Your task to perform on an android device: Go to privacy settings Image 0: 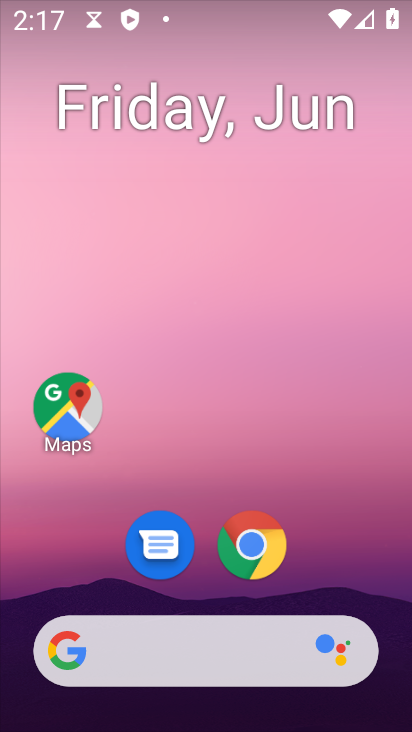
Step 0: drag from (312, 579) to (332, 175)
Your task to perform on an android device: Go to privacy settings Image 1: 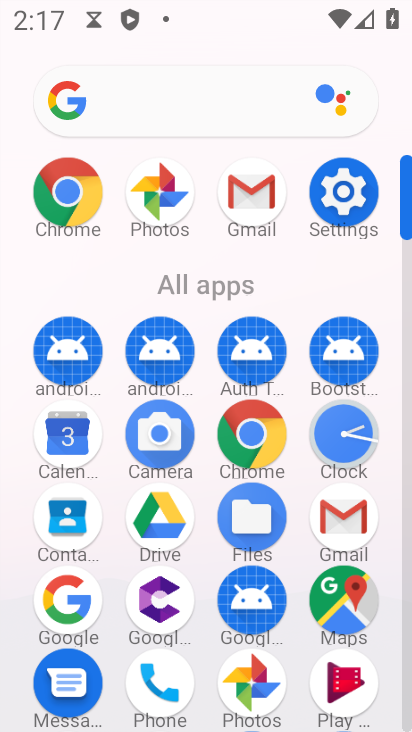
Step 1: click (362, 214)
Your task to perform on an android device: Go to privacy settings Image 2: 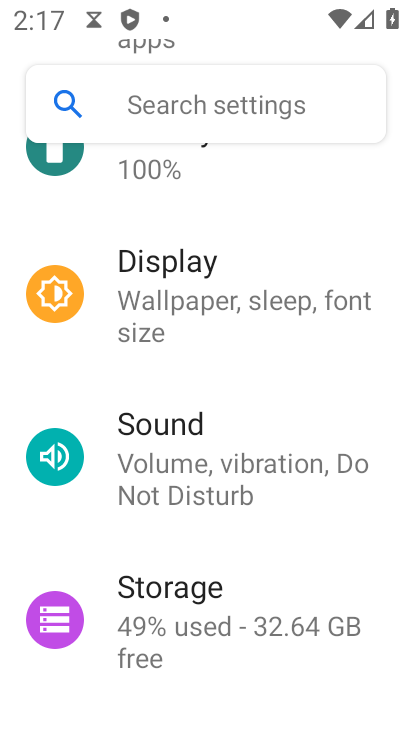
Step 2: drag from (210, 565) to (222, 195)
Your task to perform on an android device: Go to privacy settings Image 3: 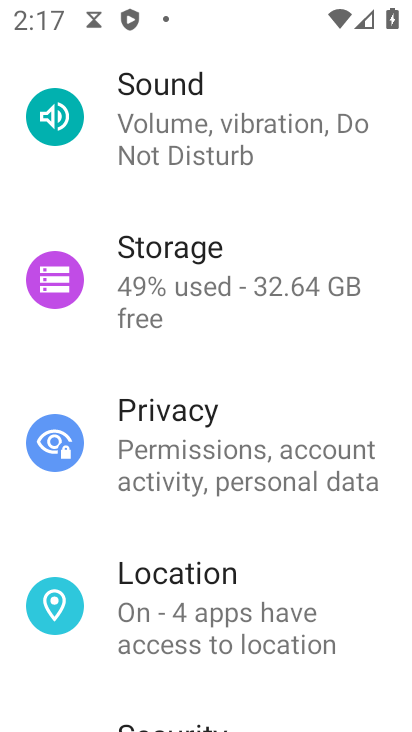
Step 3: click (184, 475)
Your task to perform on an android device: Go to privacy settings Image 4: 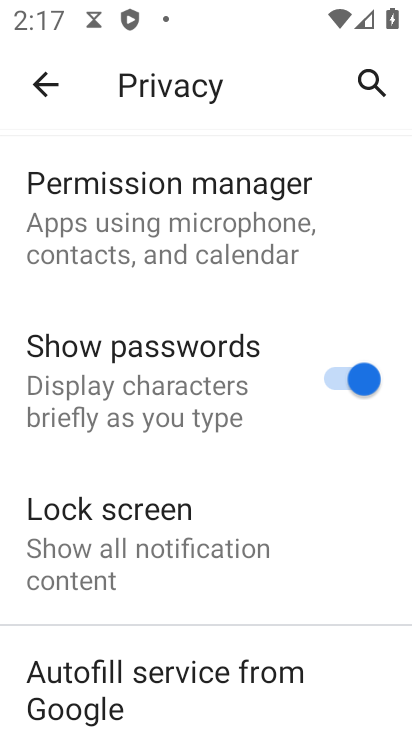
Step 4: task complete